Your task to perform on an android device: turn off javascript in the chrome app Image 0: 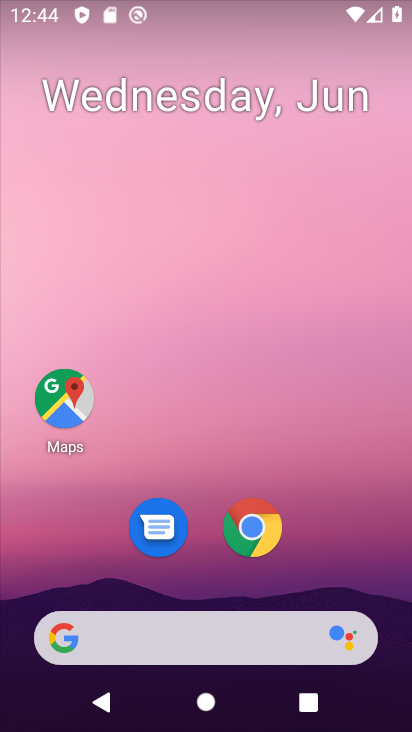
Step 0: click (253, 540)
Your task to perform on an android device: turn off javascript in the chrome app Image 1: 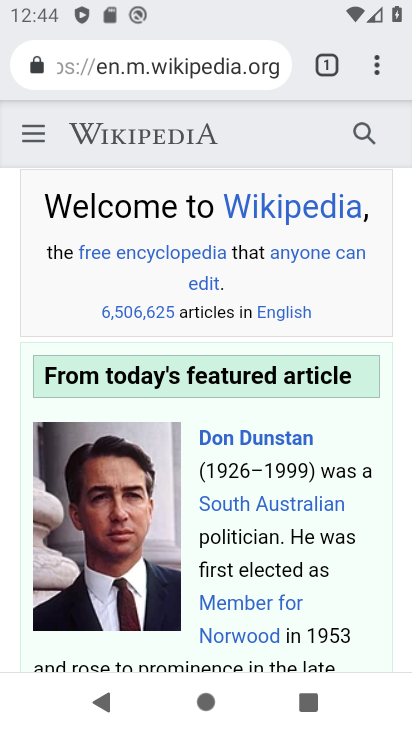
Step 1: click (370, 78)
Your task to perform on an android device: turn off javascript in the chrome app Image 2: 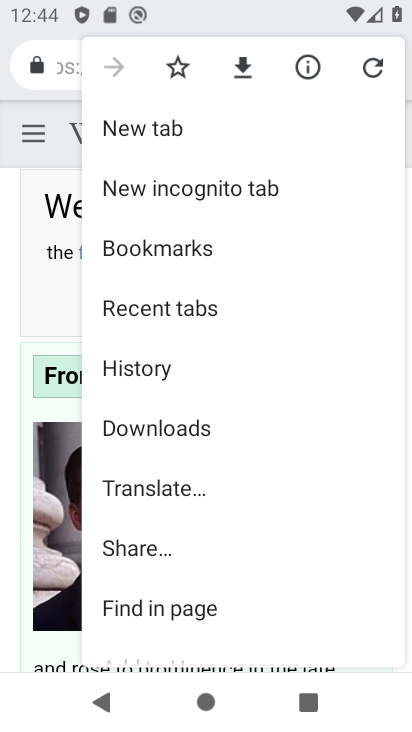
Step 2: drag from (227, 545) to (287, 0)
Your task to perform on an android device: turn off javascript in the chrome app Image 3: 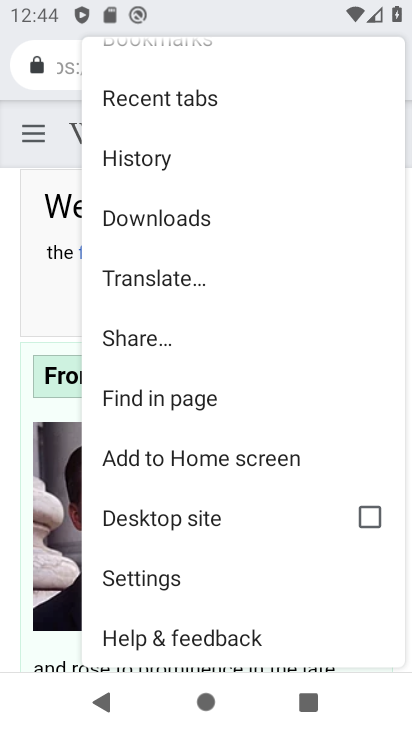
Step 3: click (168, 579)
Your task to perform on an android device: turn off javascript in the chrome app Image 4: 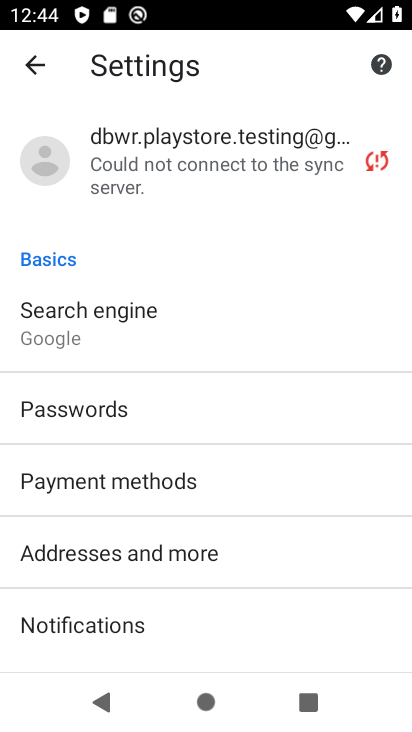
Step 4: drag from (153, 460) to (271, 44)
Your task to perform on an android device: turn off javascript in the chrome app Image 5: 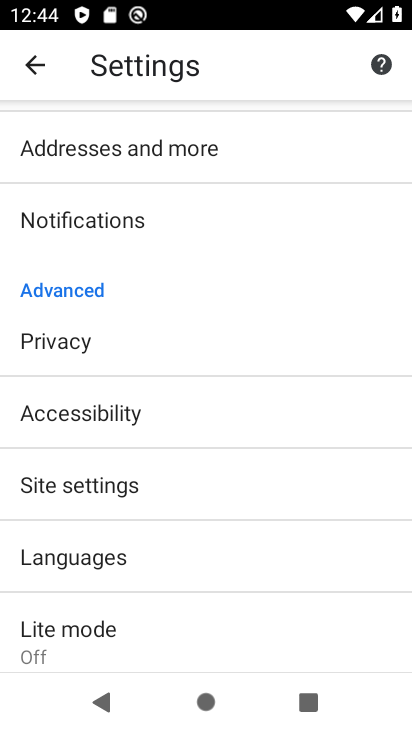
Step 5: click (118, 482)
Your task to perform on an android device: turn off javascript in the chrome app Image 6: 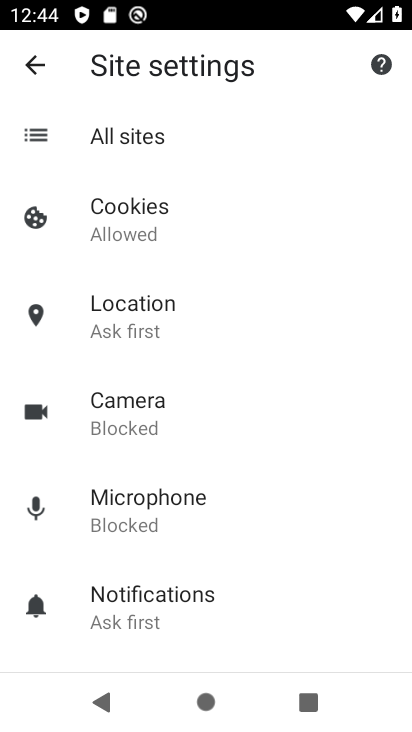
Step 6: drag from (136, 509) to (199, 154)
Your task to perform on an android device: turn off javascript in the chrome app Image 7: 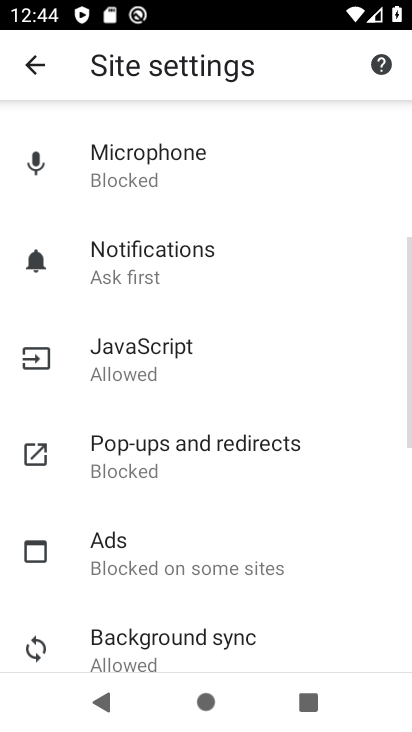
Step 7: click (148, 374)
Your task to perform on an android device: turn off javascript in the chrome app Image 8: 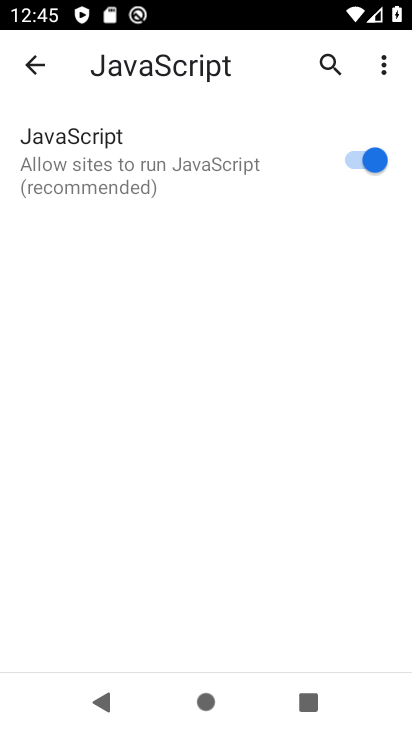
Step 8: click (363, 162)
Your task to perform on an android device: turn off javascript in the chrome app Image 9: 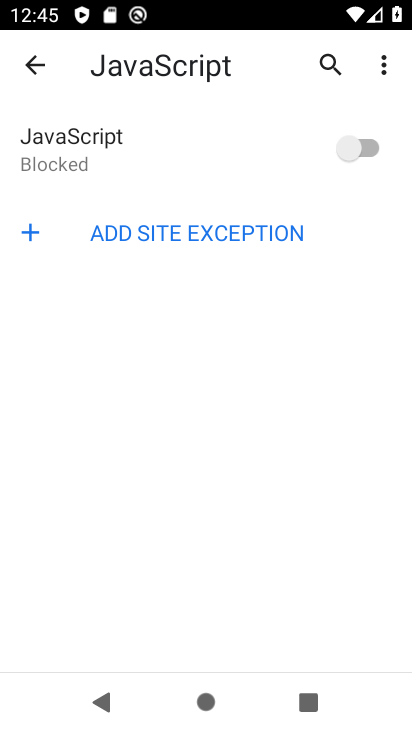
Step 9: task complete